Your task to perform on an android device: Open the Play Movies app and select the watchlist tab. Image 0: 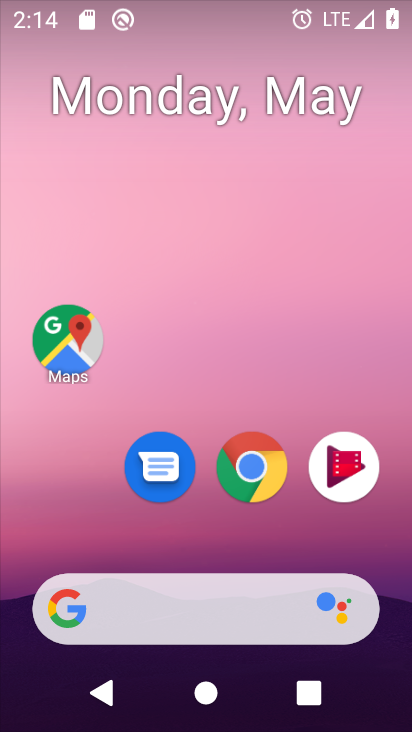
Step 0: drag from (224, 579) to (274, 239)
Your task to perform on an android device: Open the Play Movies app and select the watchlist tab. Image 1: 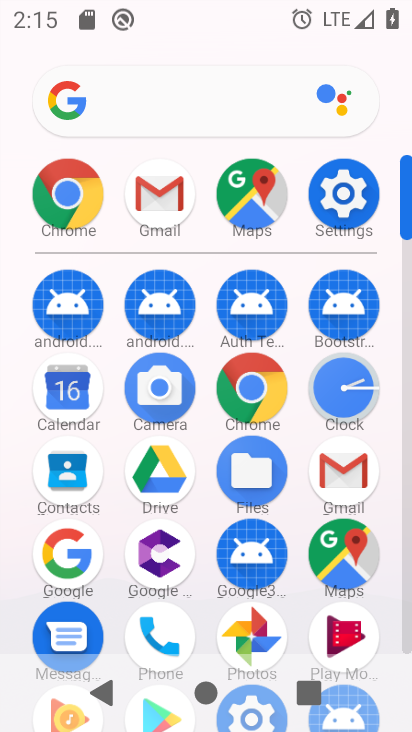
Step 1: click (338, 624)
Your task to perform on an android device: Open the Play Movies app and select the watchlist tab. Image 2: 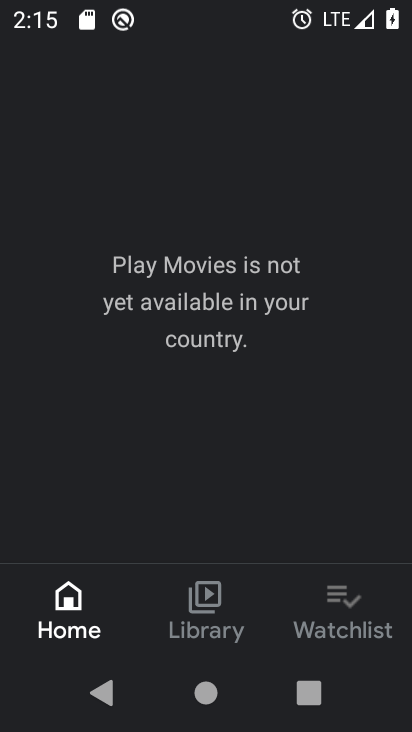
Step 2: click (306, 624)
Your task to perform on an android device: Open the Play Movies app and select the watchlist tab. Image 3: 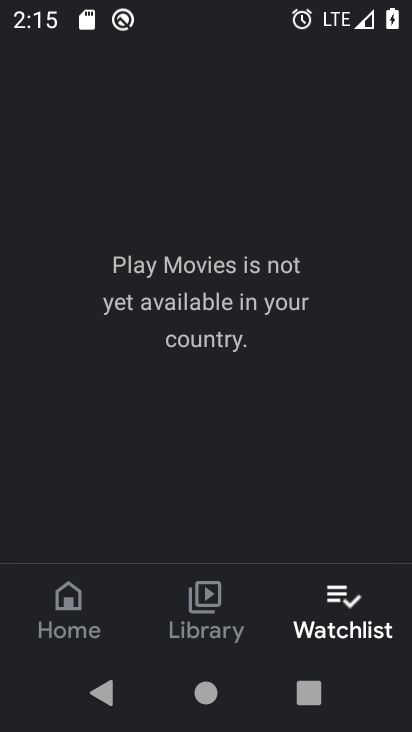
Step 3: task complete